Your task to perform on an android device: open device folders in google photos Image 0: 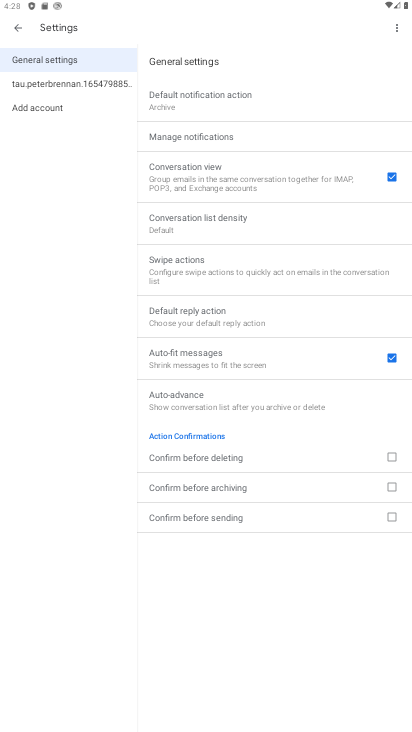
Step 0: press home button
Your task to perform on an android device: open device folders in google photos Image 1: 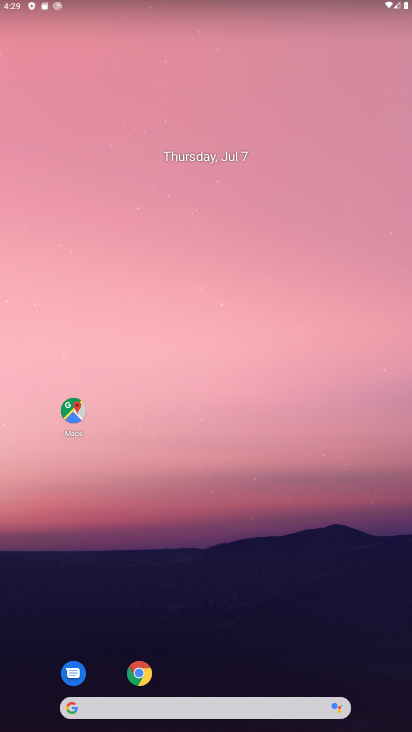
Step 1: drag from (199, 667) to (245, 72)
Your task to perform on an android device: open device folders in google photos Image 2: 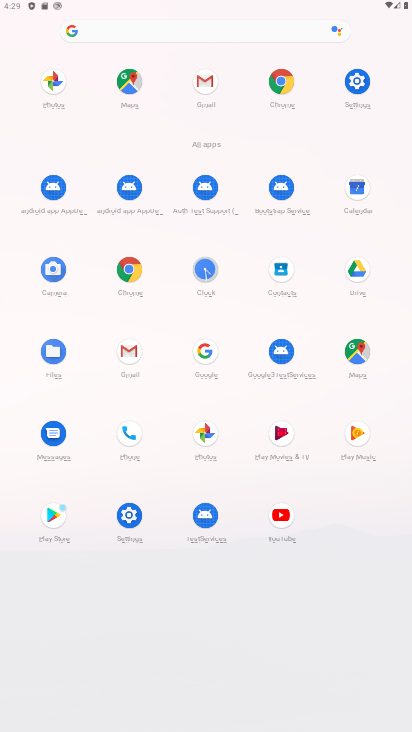
Step 2: click (206, 444)
Your task to perform on an android device: open device folders in google photos Image 3: 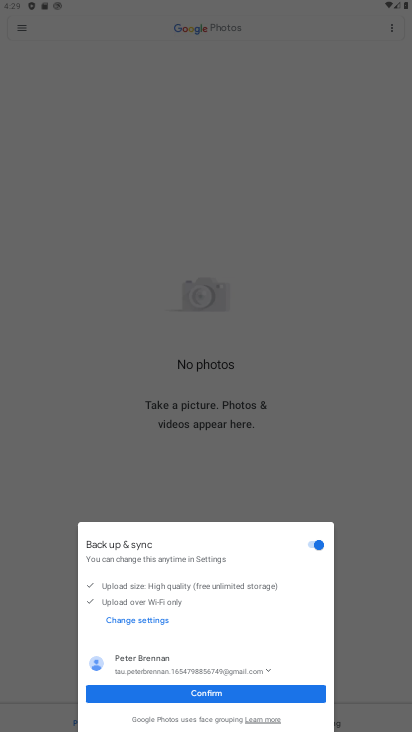
Step 3: click (211, 698)
Your task to perform on an android device: open device folders in google photos Image 4: 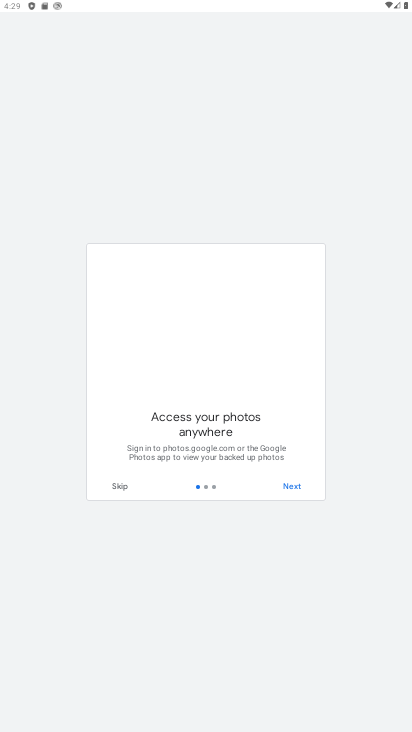
Step 4: click (282, 484)
Your task to perform on an android device: open device folders in google photos Image 5: 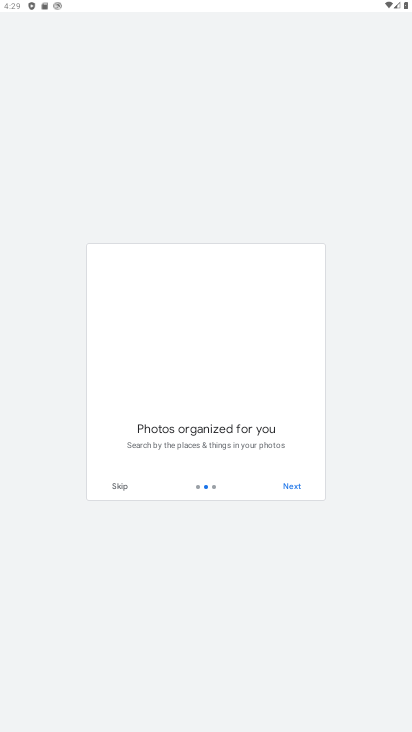
Step 5: click (282, 484)
Your task to perform on an android device: open device folders in google photos Image 6: 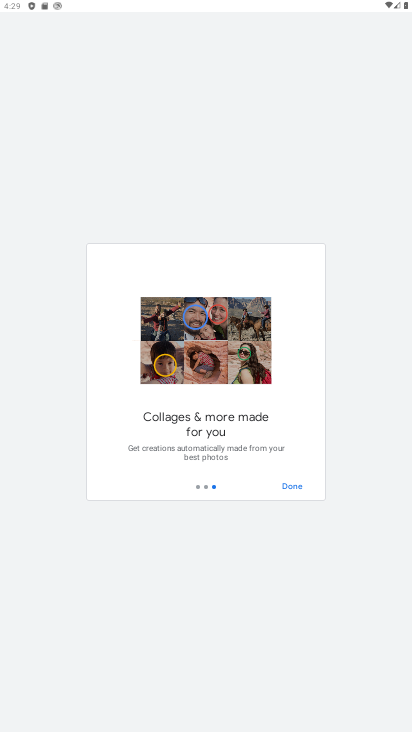
Step 6: click (282, 484)
Your task to perform on an android device: open device folders in google photos Image 7: 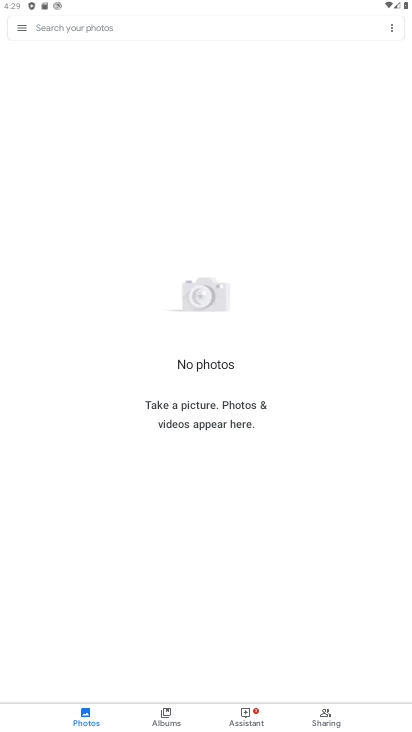
Step 7: click (30, 25)
Your task to perform on an android device: open device folders in google photos Image 8: 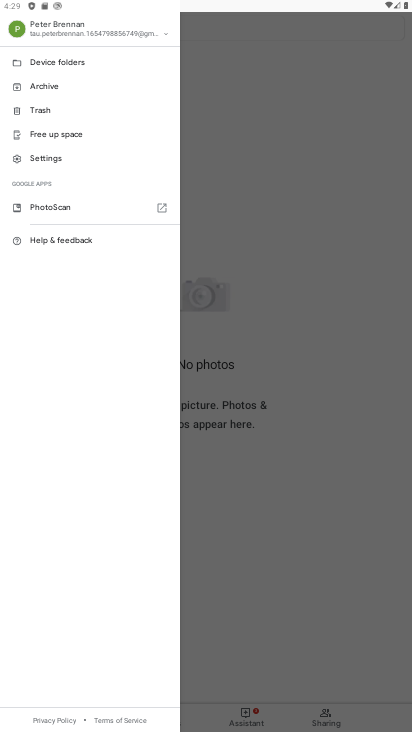
Step 8: click (98, 68)
Your task to perform on an android device: open device folders in google photos Image 9: 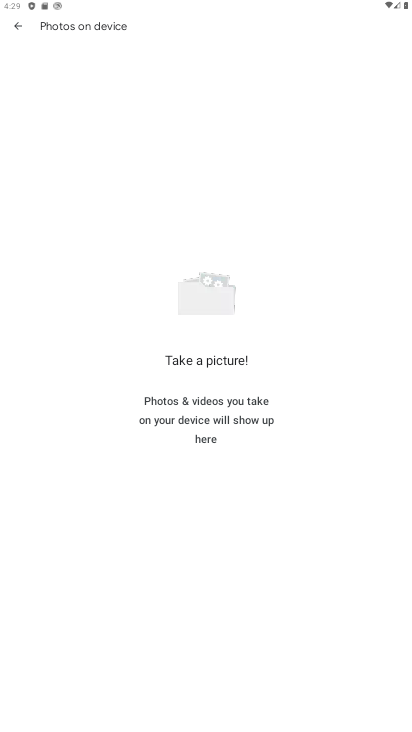
Step 9: task complete